Your task to perform on an android device: When is my next appointment? Image 0: 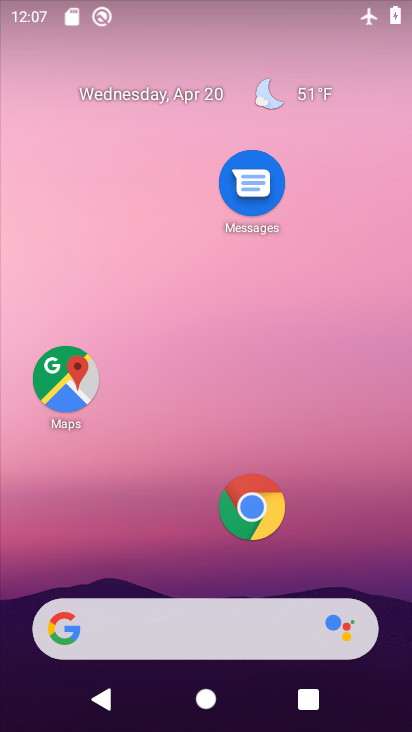
Step 0: drag from (158, 533) to (216, 33)
Your task to perform on an android device: When is my next appointment? Image 1: 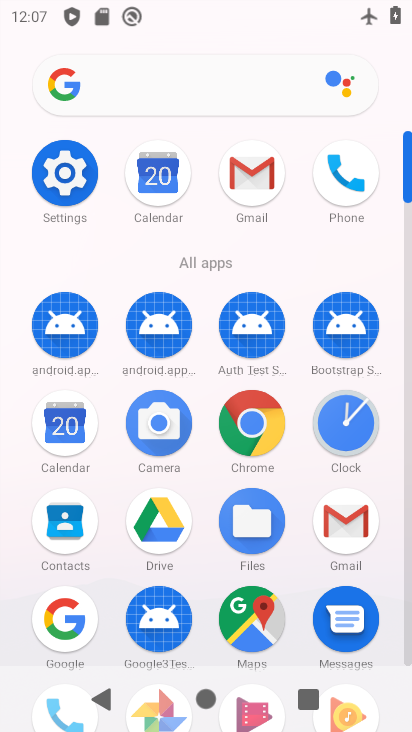
Step 1: click (61, 429)
Your task to perform on an android device: When is my next appointment? Image 2: 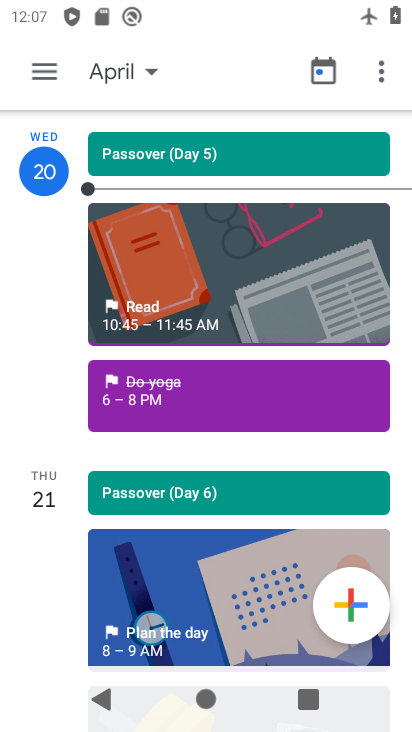
Step 2: click (156, 68)
Your task to perform on an android device: When is my next appointment? Image 3: 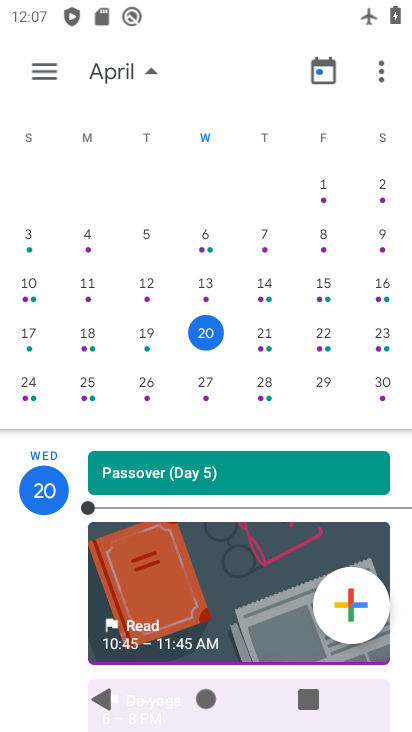
Step 3: click (316, 335)
Your task to perform on an android device: When is my next appointment? Image 4: 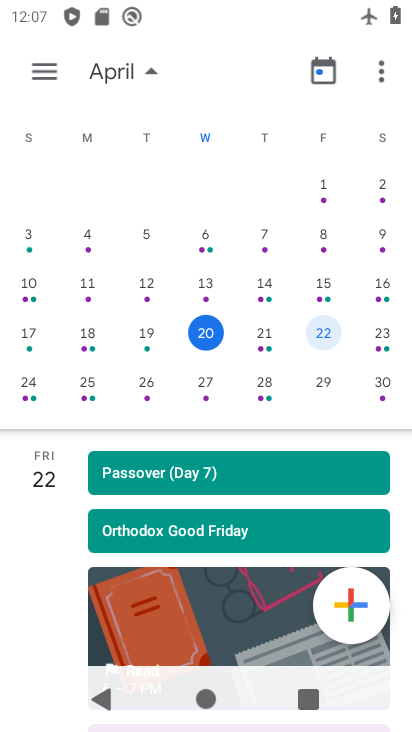
Step 4: task complete